Your task to perform on an android device: change keyboard looks Image 0: 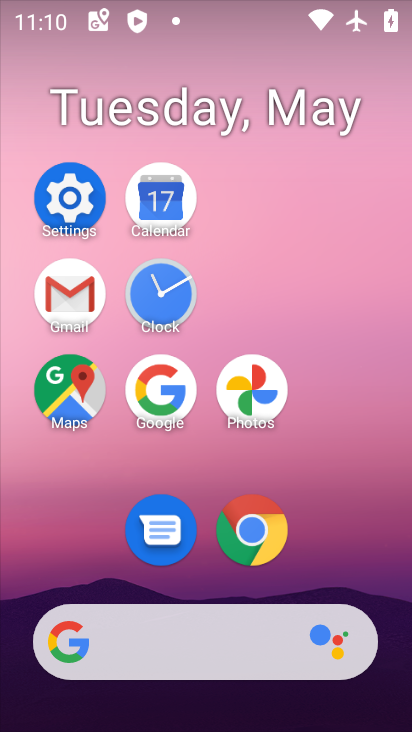
Step 0: click (84, 198)
Your task to perform on an android device: change keyboard looks Image 1: 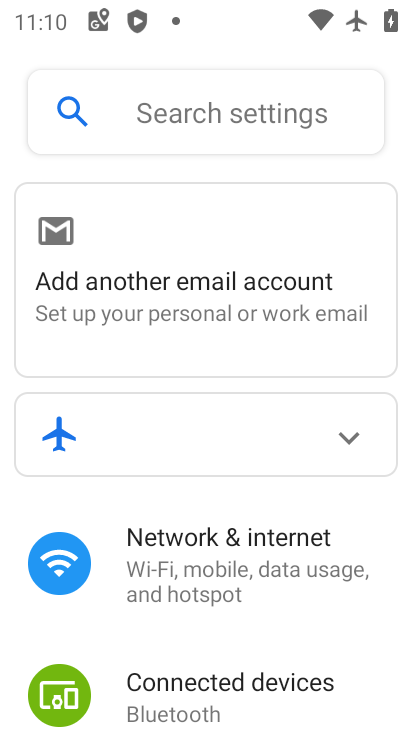
Step 1: drag from (255, 624) to (275, 115)
Your task to perform on an android device: change keyboard looks Image 2: 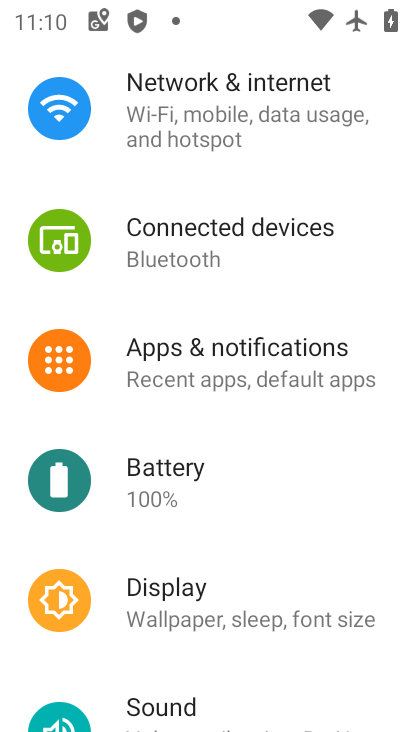
Step 2: drag from (247, 627) to (285, 132)
Your task to perform on an android device: change keyboard looks Image 3: 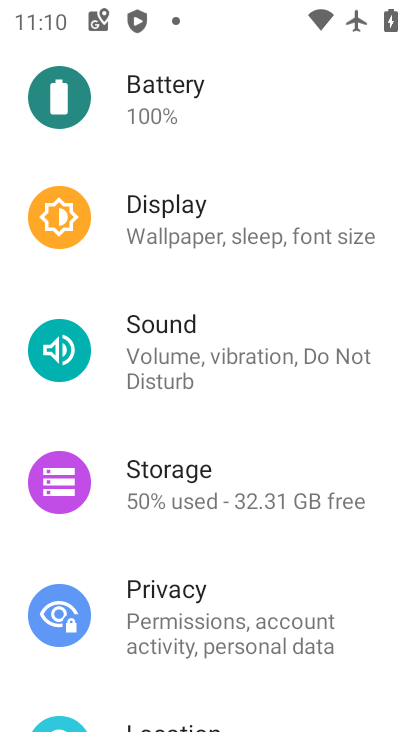
Step 3: drag from (271, 611) to (286, 140)
Your task to perform on an android device: change keyboard looks Image 4: 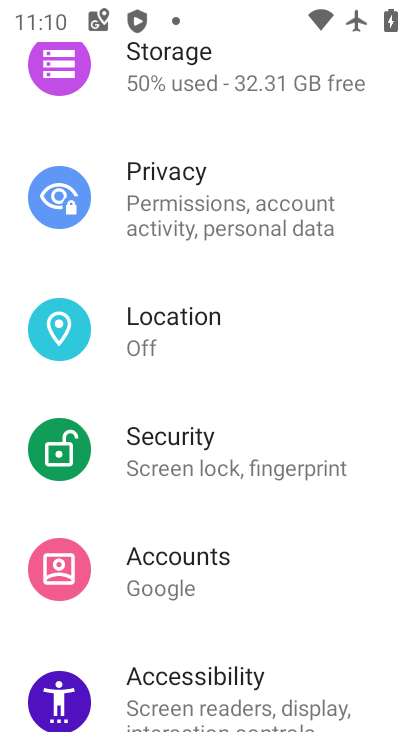
Step 4: drag from (318, 654) to (346, 218)
Your task to perform on an android device: change keyboard looks Image 5: 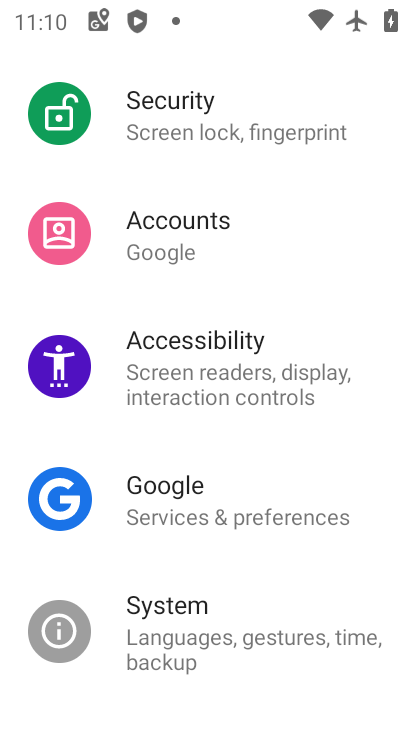
Step 5: click (236, 604)
Your task to perform on an android device: change keyboard looks Image 6: 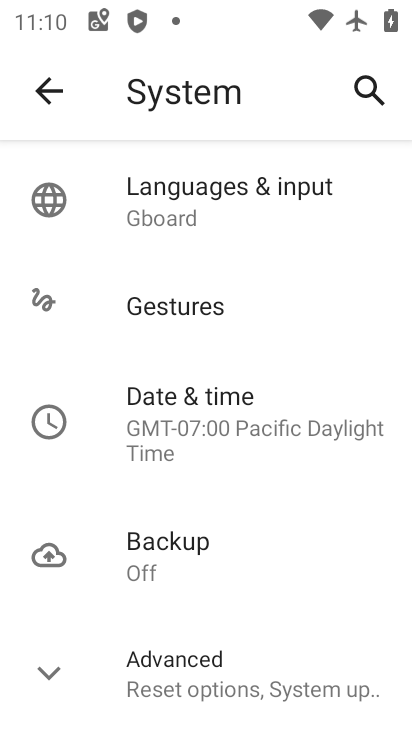
Step 6: click (196, 230)
Your task to perform on an android device: change keyboard looks Image 7: 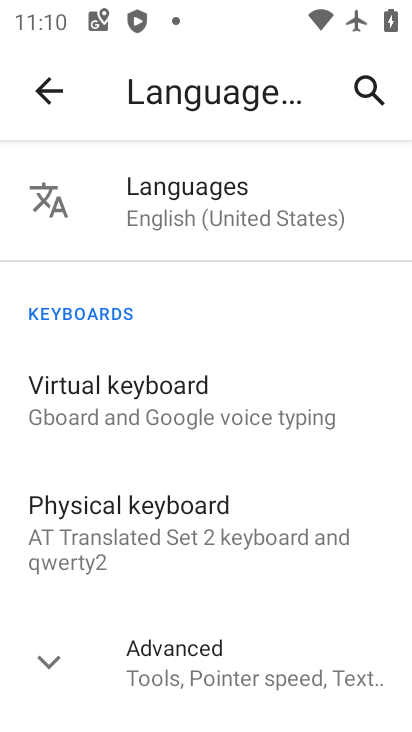
Step 7: click (226, 382)
Your task to perform on an android device: change keyboard looks Image 8: 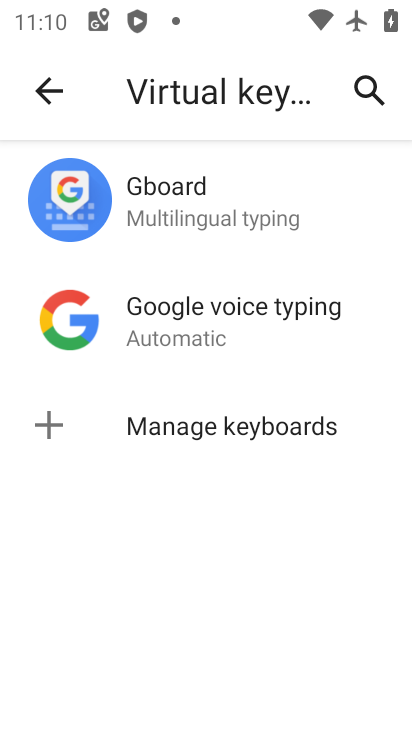
Step 8: click (185, 213)
Your task to perform on an android device: change keyboard looks Image 9: 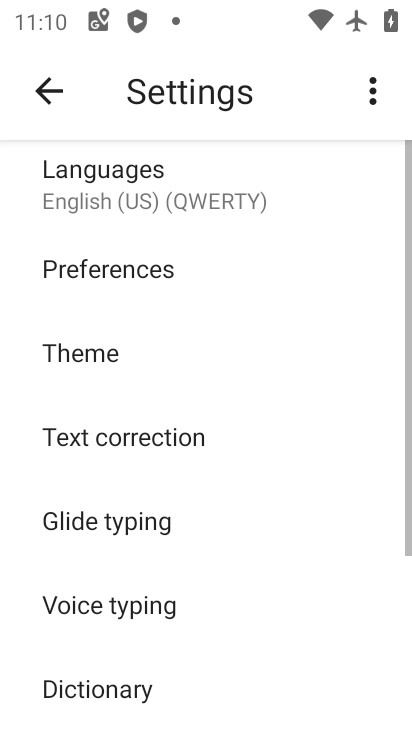
Step 9: click (205, 363)
Your task to perform on an android device: change keyboard looks Image 10: 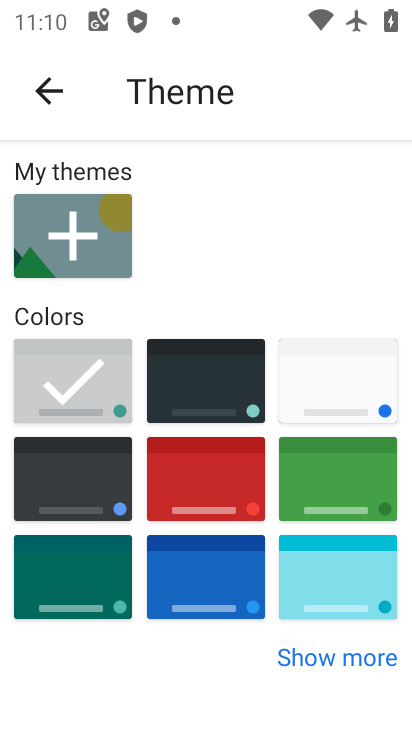
Step 10: click (222, 381)
Your task to perform on an android device: change keyboard looks Image 11: 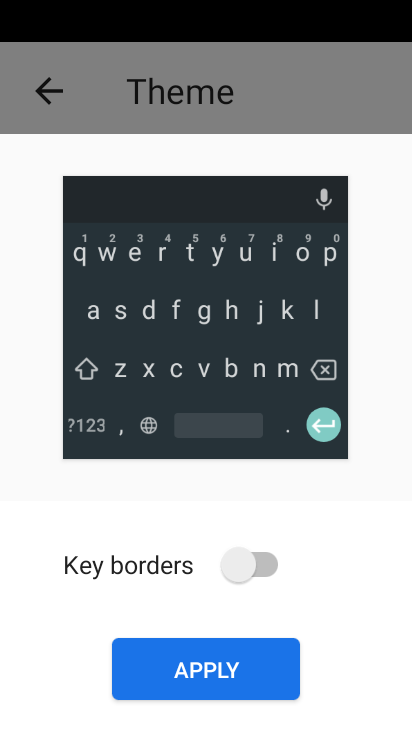
Step 11: click (231, 555)
Your task to perform on an android device: change keyboard looks Image 12: 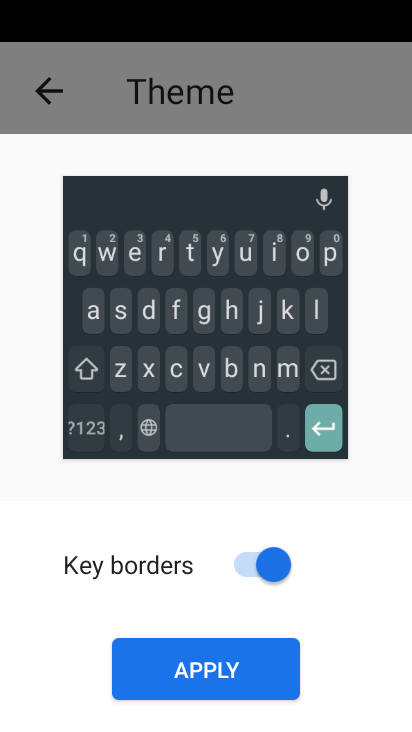
Step 12: click (220, 670)
Your task to perform on an android device: change keyboard looks Image 13: 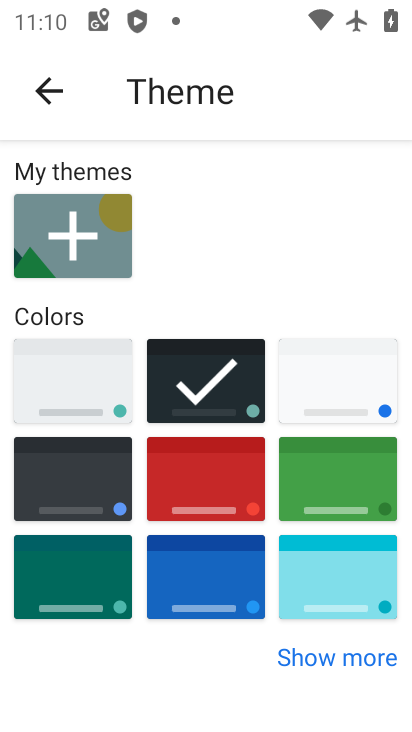
Step 13: task complete